Your task to perform on an android device: Open the map Image 0: 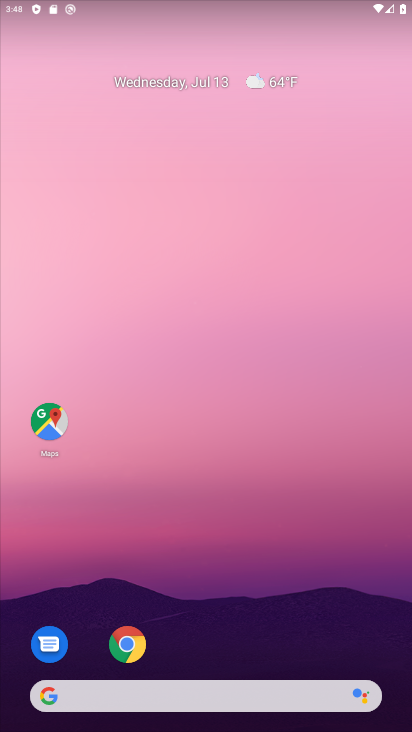
Step 0: click (53, 427)
Your task to perform on an android device: Open the map Image 1: 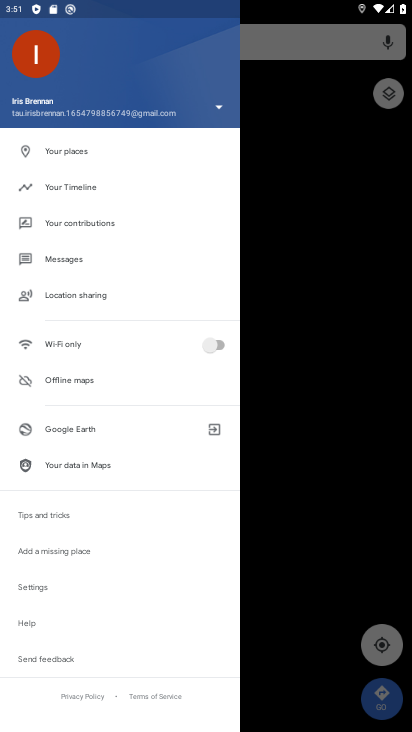
Step 1: task complete